Your task to perform on an android device: Open eBay Image 0: 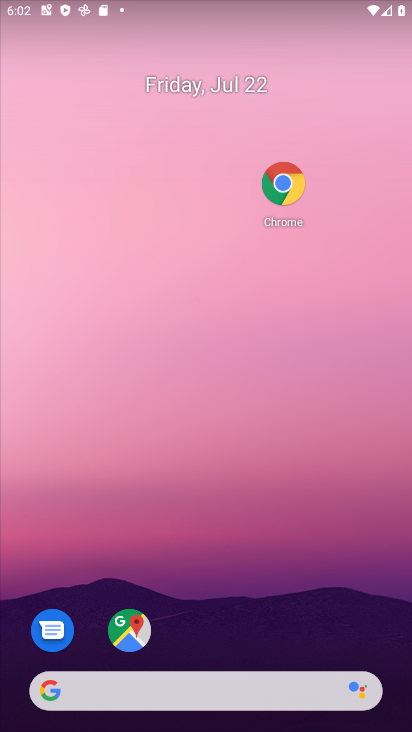
Step 0: click (280, 190)
Your task to perform on an android device: Open eBay Image 1: 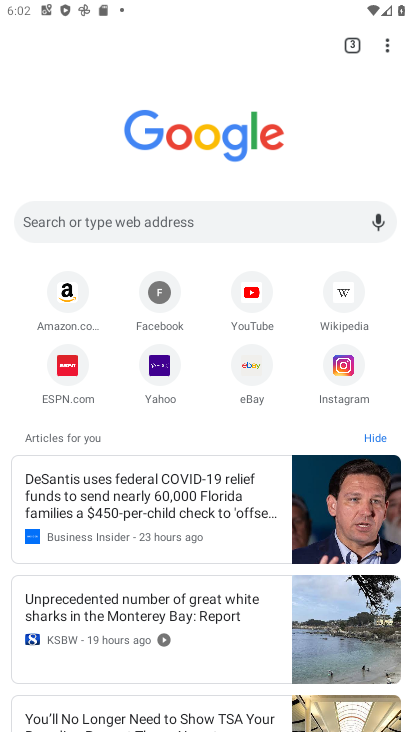
Step 1: click (254, 379)
Your task to perform on an android device: Open eBay Image 2: 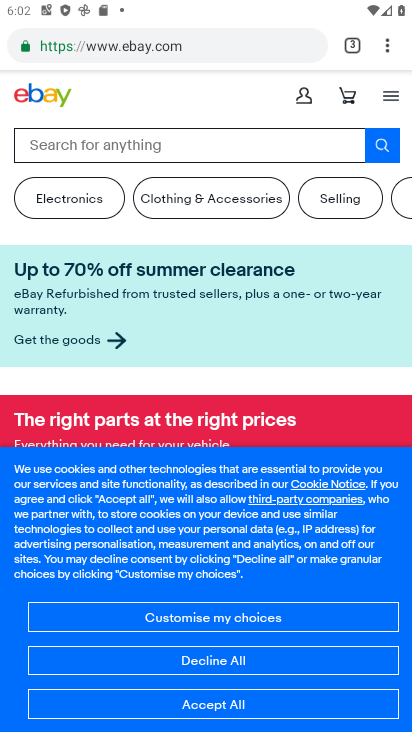
Step 2: task complete